Your task to perform on an android device: change alarm snooze length Image 0: 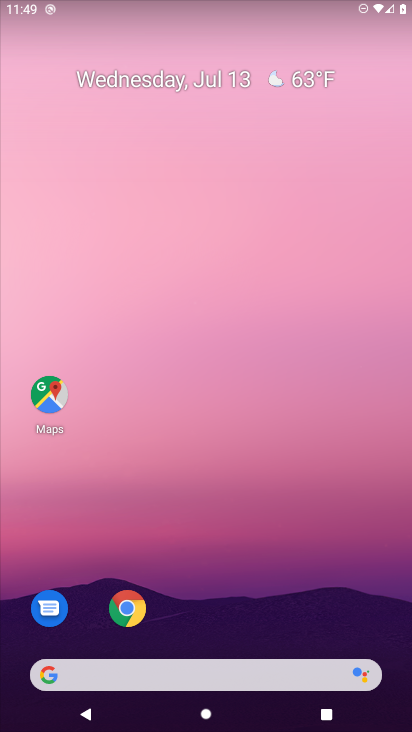
Step 0: press home button
Your task to perform on an android device: change alarm snooze length Image 1: 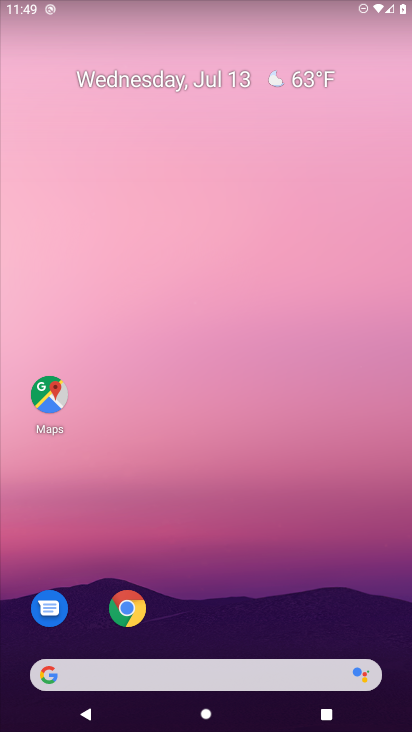
Step 1: drag from (226, 643) to (159, 188)
Your task to perform on an android device: change alarm snooze length Image 2: 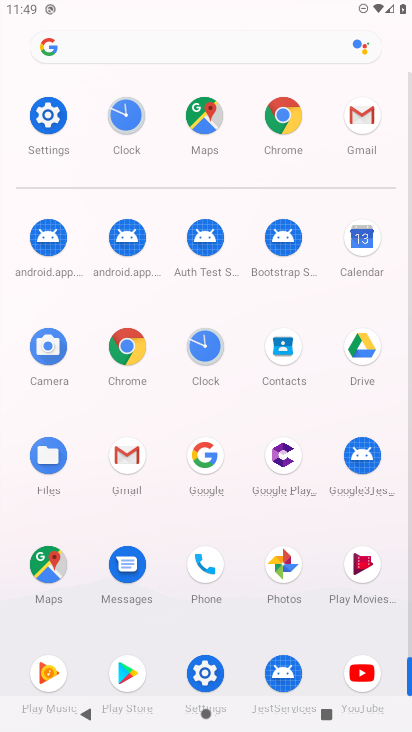
Step 2: click (201, 358)
Your task to perform on an android device: change alarm snooze length Image 3: 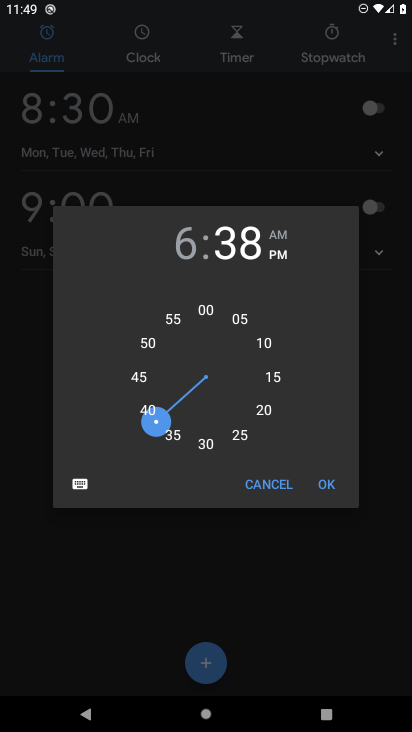
Step 3: click (262, 495)
Your task to perform on an android device: change alarm snooze length Image 4: 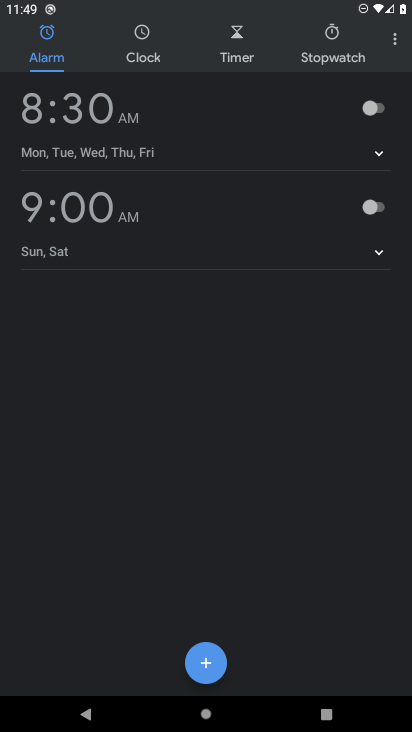
Step 4: click (393, 46)
Your task to perform on an android device: change alarm snooze length Image 5: 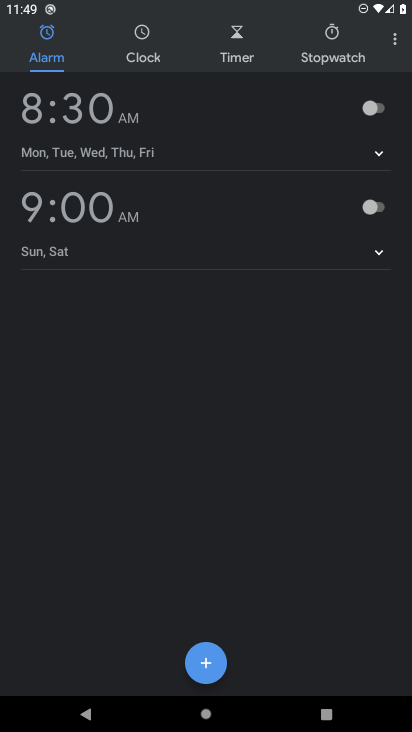
Step 5: click (397, 43)
Your task to perform on an android device: change alarm snooze length Image 6: 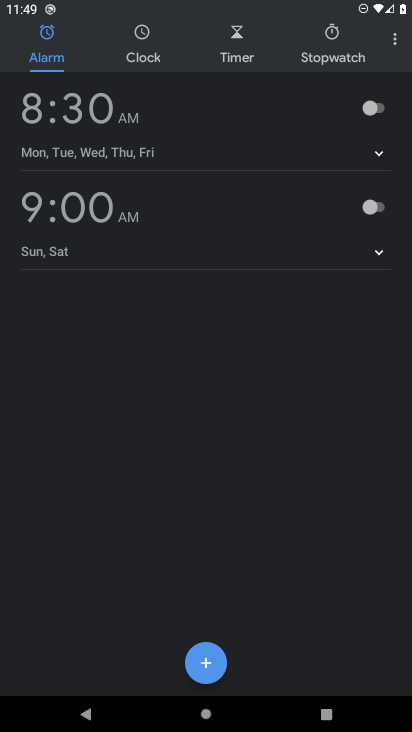
Step 6: click (397, 39)
Your task to perform on an android device: change alarm snooze length Image 7: 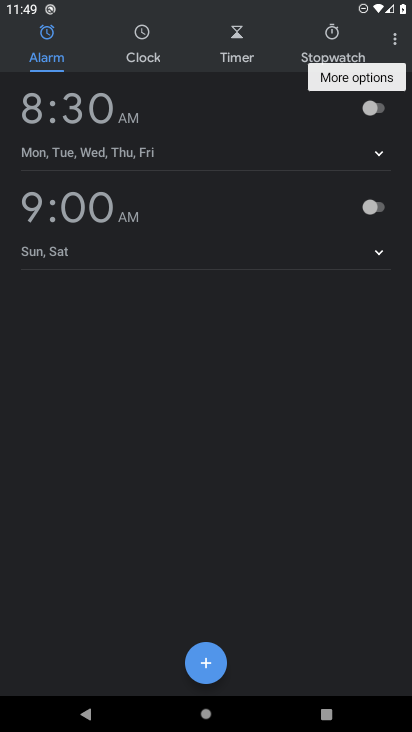
Step 7: click (360, 77)
Your task to perform on an android device: change alarm snooze length Image 8: 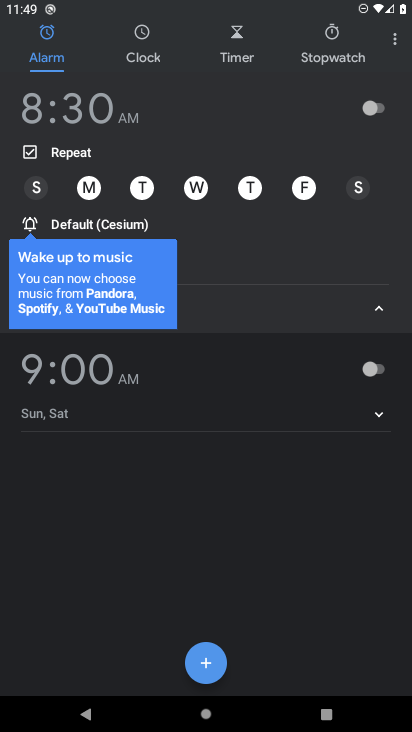
Step 8: click (394, 47)
Your task to perform on an android device: change alarm snooze length Image 9: 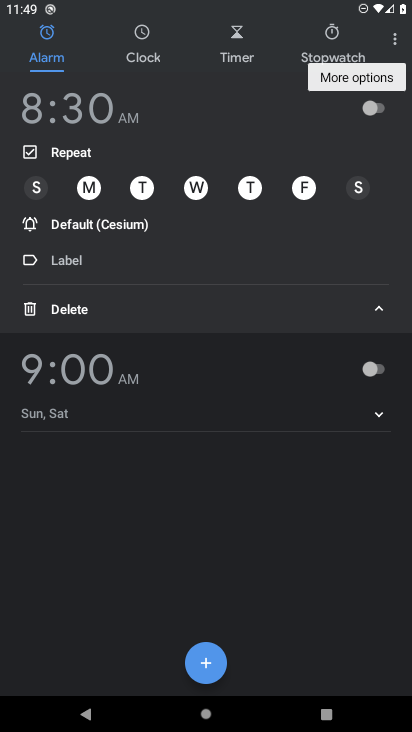
Step 9: click (394, 47)
Your task to perform on an android device: change alarm snooze length Image 10: 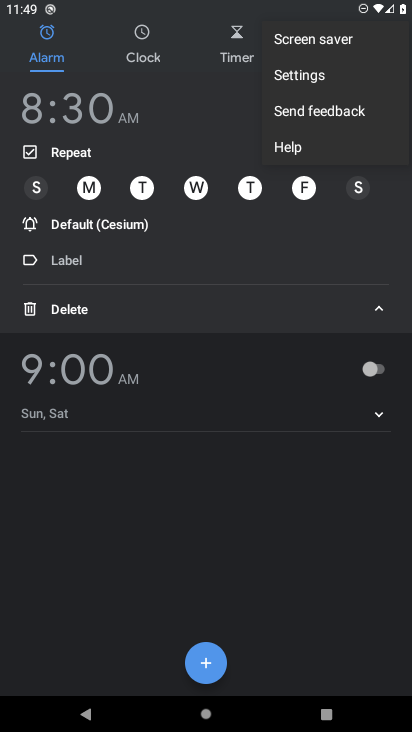
Step 10: click (313, 79)
Your task to perform on an android device: change alarm snooze length Image 11: 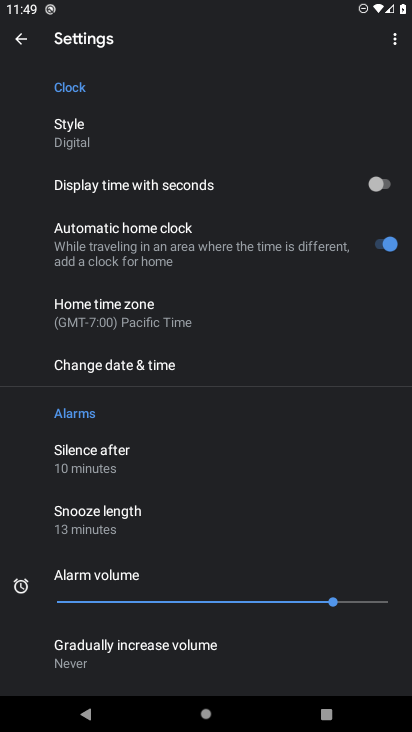
Step 11: click (100, 522)
Your task to perform on an android device: change alarm snooze length Image 12: 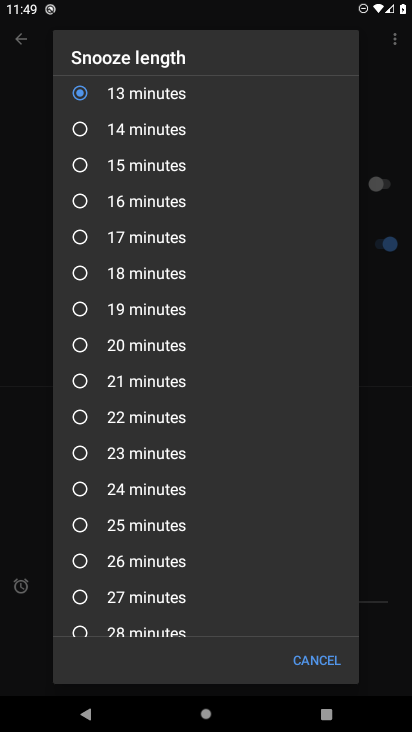
Step 12: click (79, 172)
Your task to perform on an android device: change alarm snooze length Image 13: 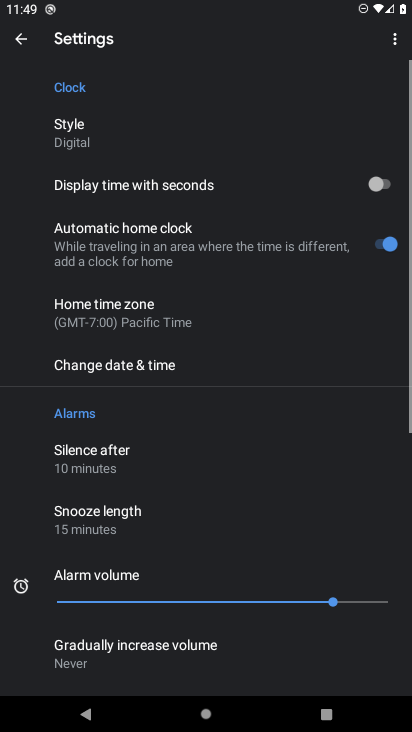
Step 13: task complete